Your task to perform on an android device: delete the emails in spam in the gmail app Image 0: 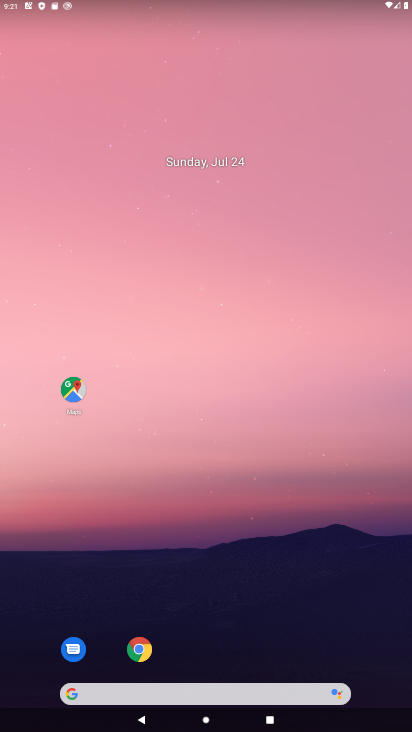
Step 0: drag from (255, 522) to (259, 317)
Your task to perform on an android device: delete the emails in spam in the gmail app Image 1: 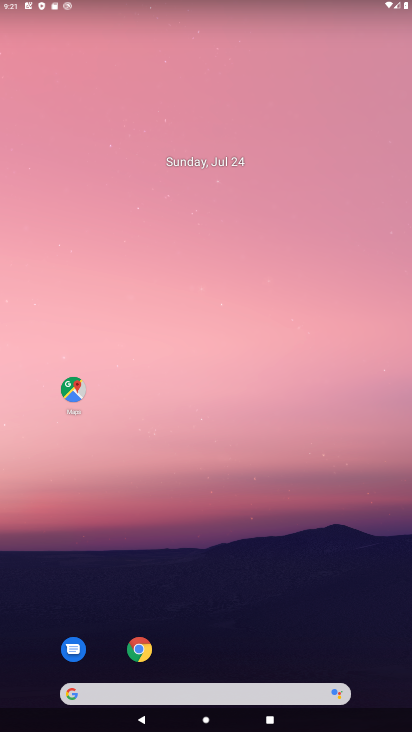
Step 1: drag from (205, 485) to (237, 148)
Your task to perform on an android device: delete the emails in spam in the gmail app Image 2: 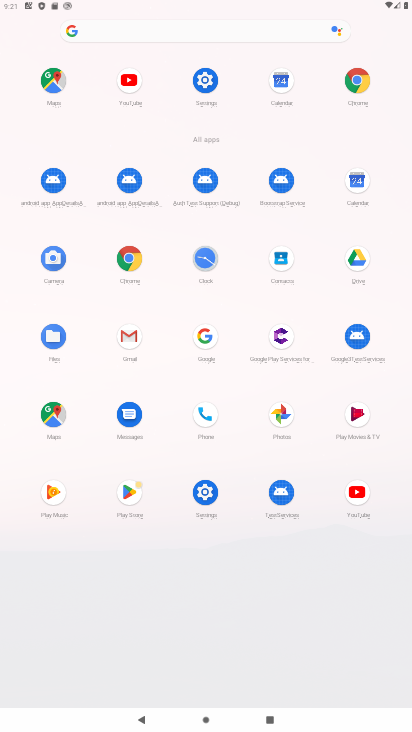
Step 2: click (128, 340)
Your task to perform on an android device: delete the emails in spam in the gmail app Image 3: 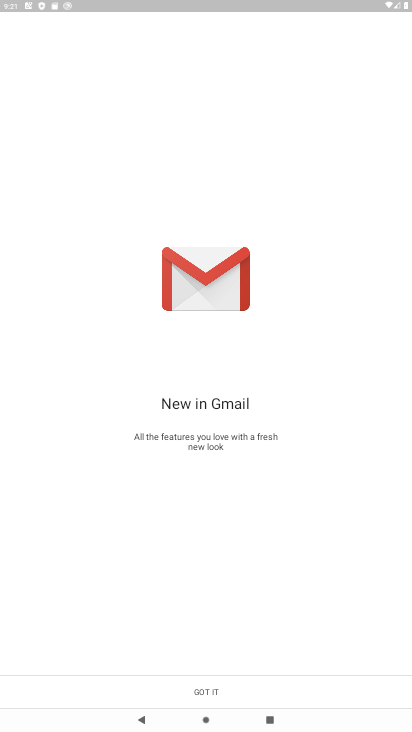
Step 3: click (227, 689)
Your task to perform on an android device: delete the emails in spam in the gmail app Image 4: 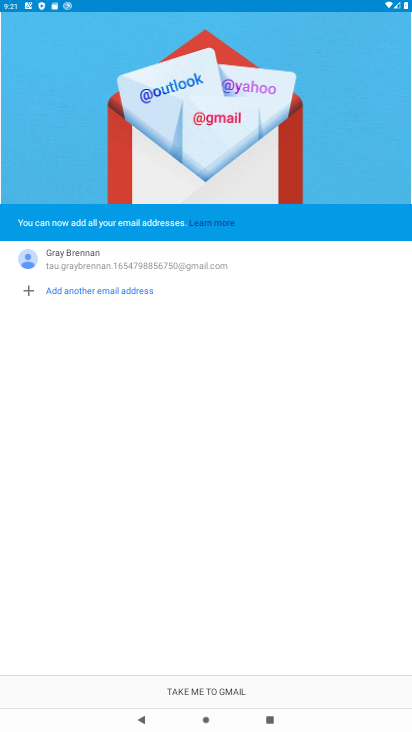
Step 4: click (227, 689)
Your task to perform on an android device: delete the emails in spam in the gmail app Image 5: 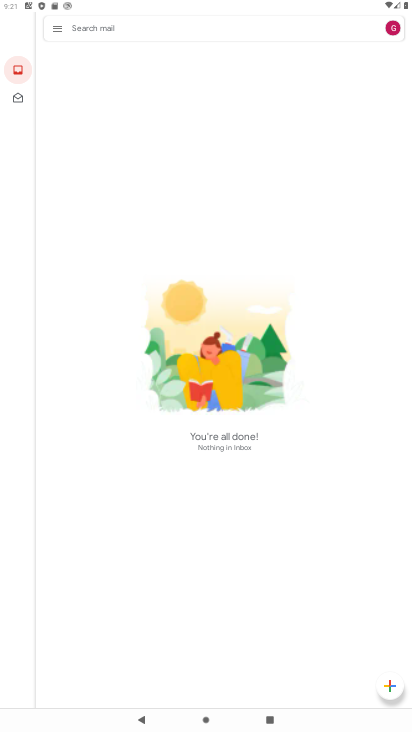
Step 5: click (69, 29)
Your task to perform on an android device: delete the emails in spam in the gmail app Image 6: 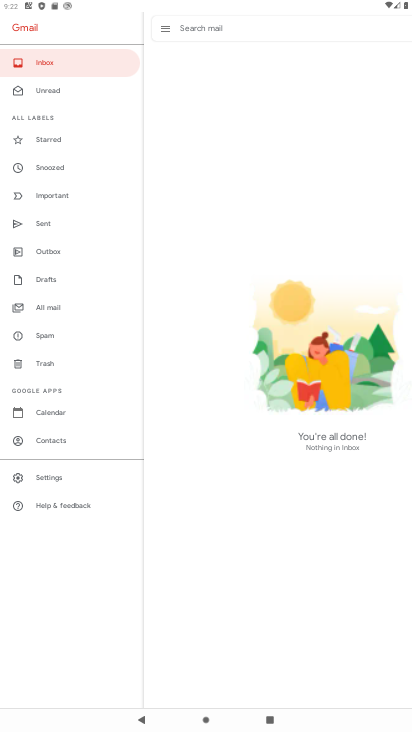
Step 6: click (38, 327)
Your task to perform on an android device: delete the emails in spam in the gmail app Image 7: 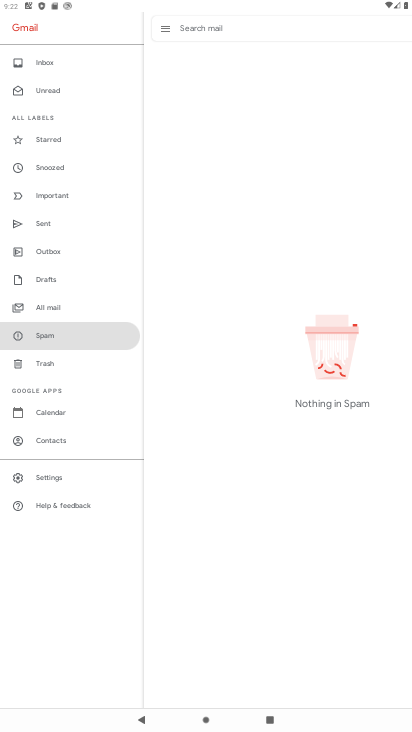
Step 7: task complete